Your task to perform on an android device: Go to settings Image 0: 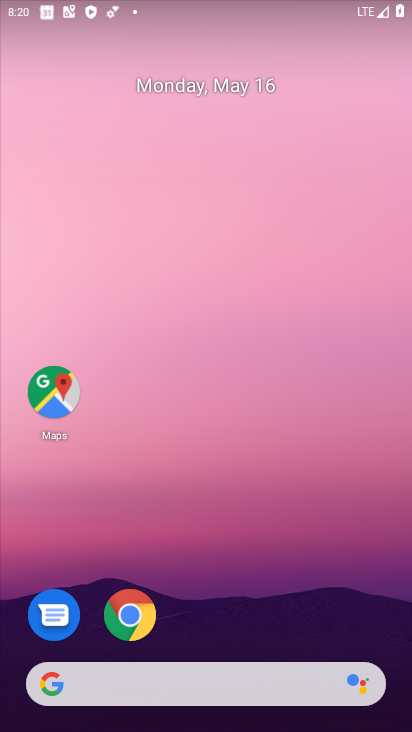
Step 0: drag from (225, 605) to (345, 49)
Your task to perform on an android device: Go to settings Image 1: 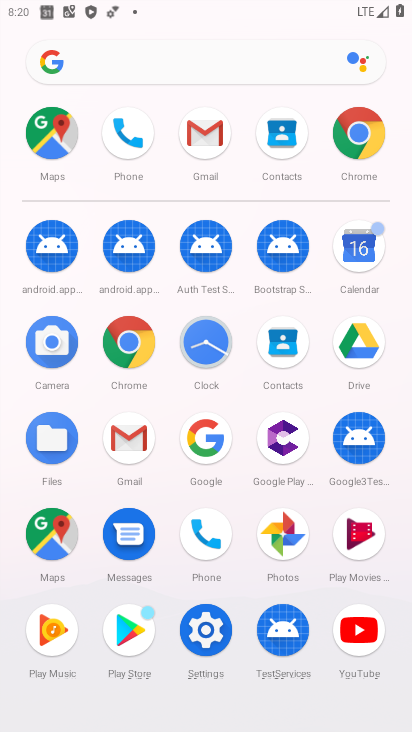
Step 1: click (212, 633)
Your task to perform on an android device: Go to settings Image 2: 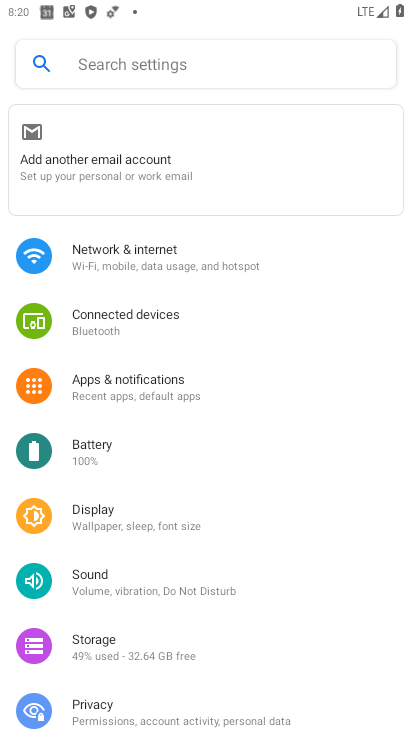
Step 2: task complete